Your task to perform on an android device: Go to Android settings Image 0: 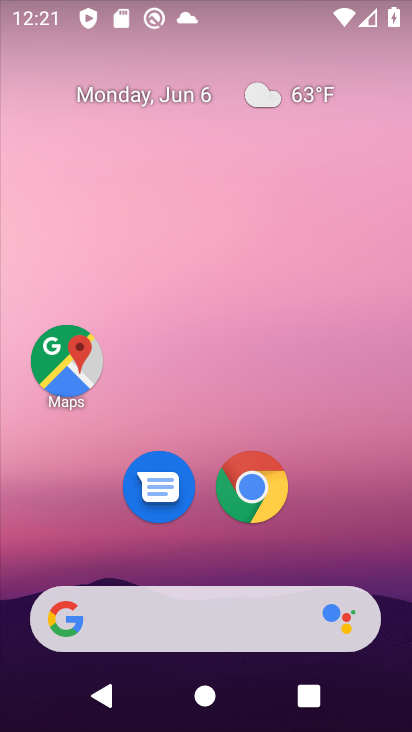
Step 0: drag from (398, 623) to (333, 53)
Your task to perform on an android device: Go to Android settings Image 1: 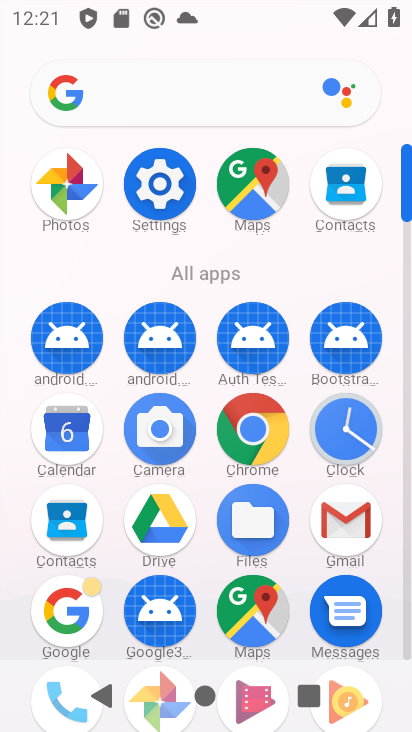
Step 1: click (407, 637)
Your task to perform on an android device: Go to Android settings Image 2: 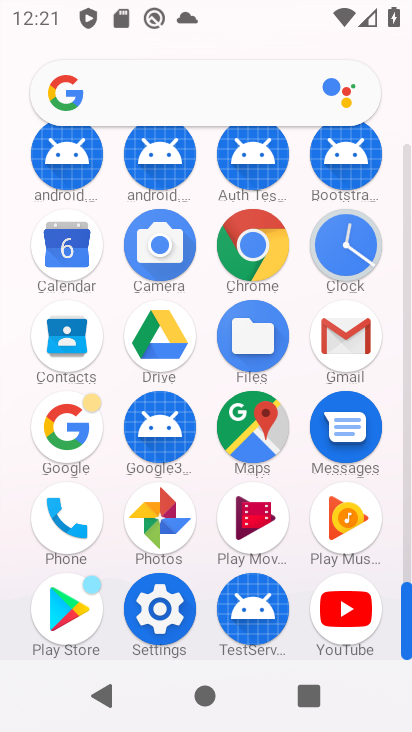
Step 2: click (163, 611)
Your task to perform on an android device: Go to Android settings Image 3: 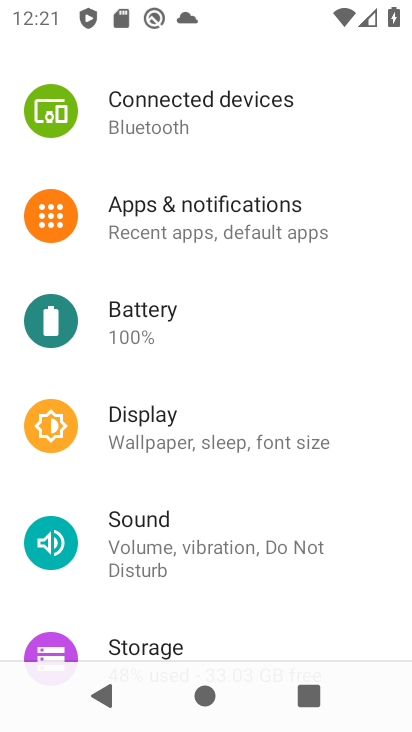
Step 3: drag from (350, 593) to (288, 228)
Your task to perform on an android device: Go to Android settings Image 4: 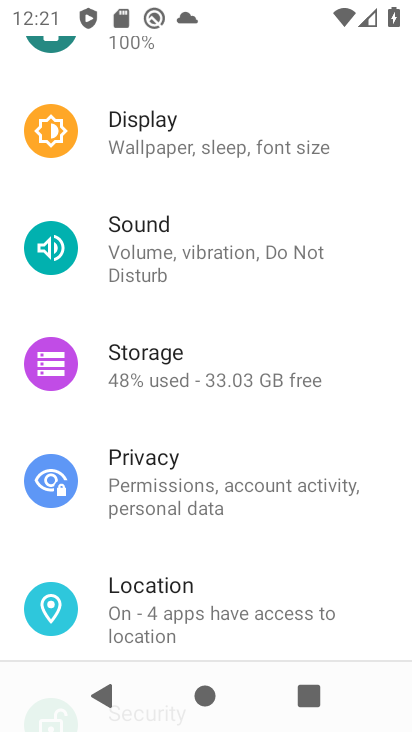
Step 4: drag from (357, 619) to (283, 143)
Your task to perform on an android device: Go to Android settings Image 5: 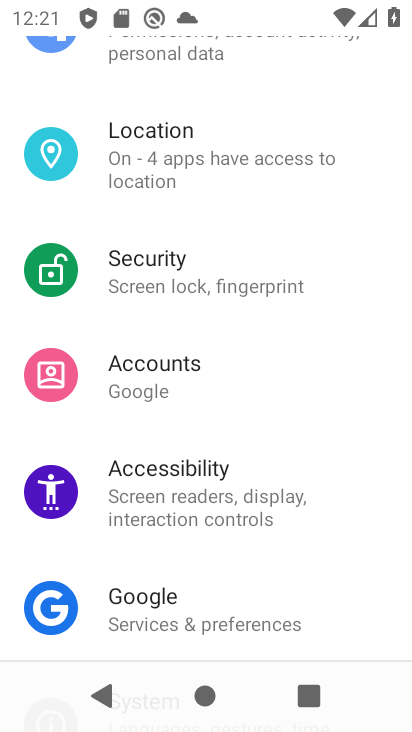
Step 5: drag from (319, 581) to (253, 104)
Your task to perform on an android device: Go to Android settings Image 6: 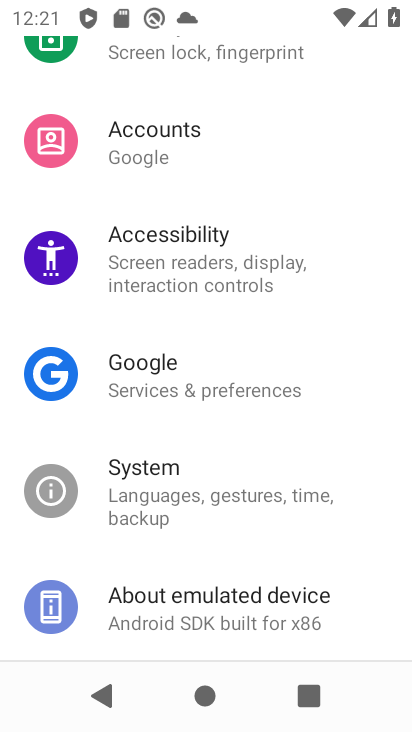
Step 6: click (197, 608)
Your task to perform on an android device: Go to Android settings Image 7: 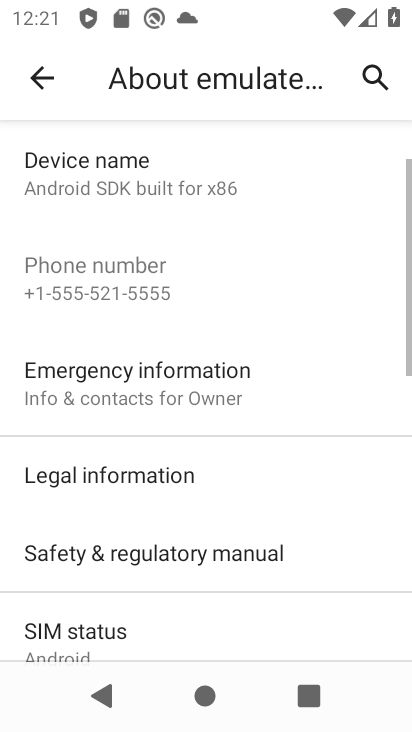
Step 7: task complete